Your task to perform on an android device: Is it going to rain tomorrow? Image 0: 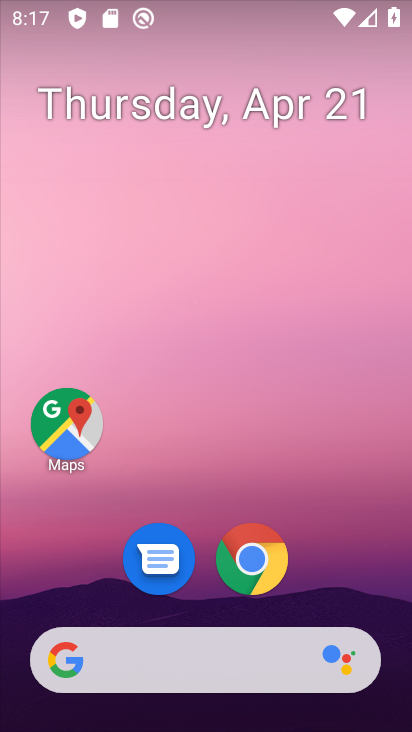
Step 0: click (254, 551)
Your task to perform on an android device: Is it going to rain tomorrow? Image 1: 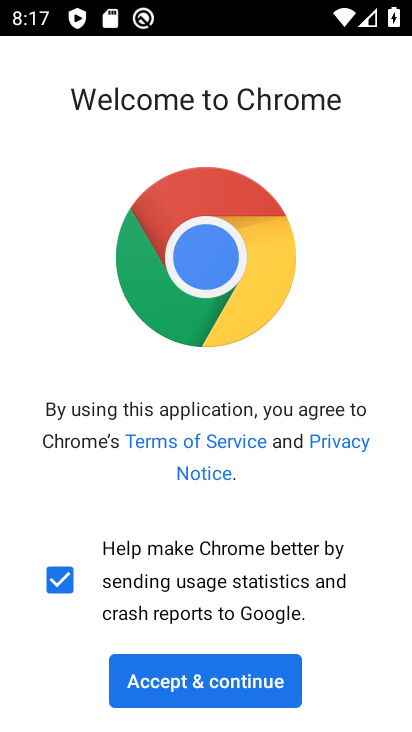
Step 1: click (228, 695)
Your task to perform on an android device: Is it going to rain tomorrow? Image 2: 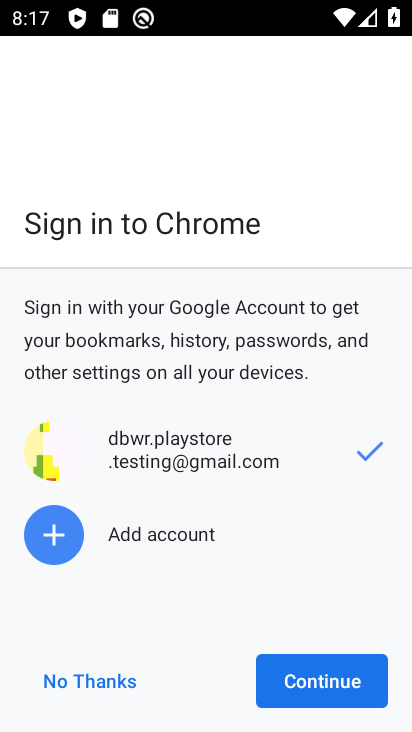
Step 2: click (278, 688)
Your task to perform on an android device: Is it going to rain tomorrow? Image 3: 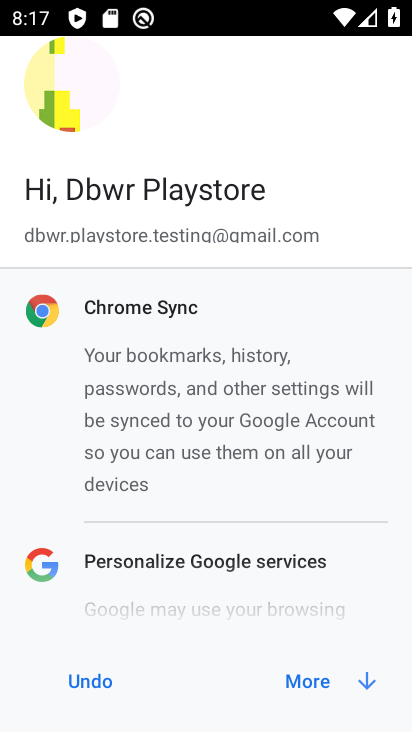
Step 3: click (296, 682)
Your task to perform on an android device: Is it going to rain tomorrow? Image 4: 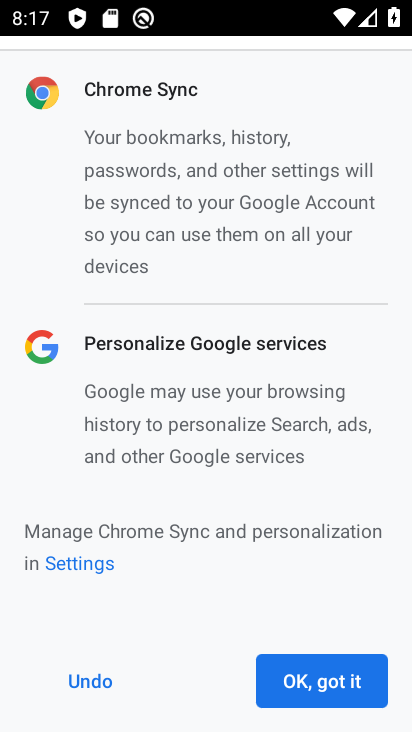
Step 4: click (336, 692)
Your task to perform on an android device: Is it going to rain tomorrow? Image 5: 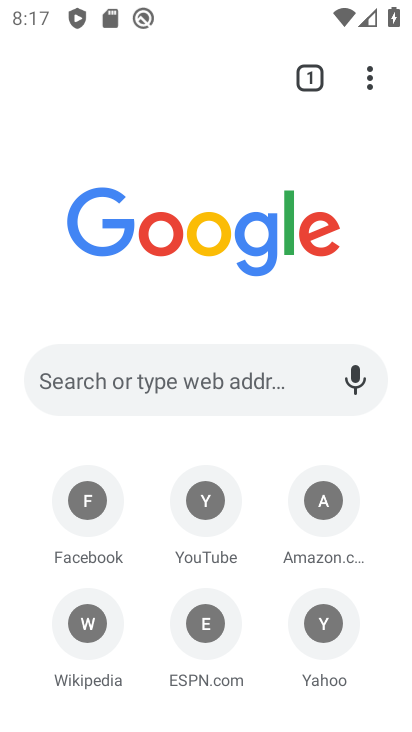
Step 5: click (153, 88)
Your task to perform on an android device: Is it going to rain tomorrow? Image 6: 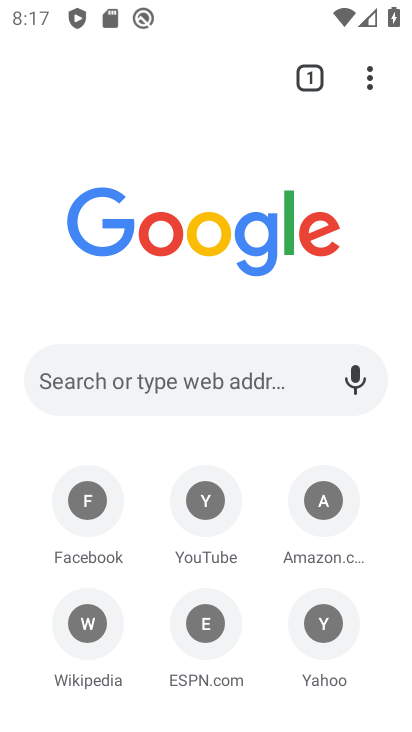
Step 6: click (206, 359)
Your task to perform on an android device: Is it going to rain tomorrow? Image 7: 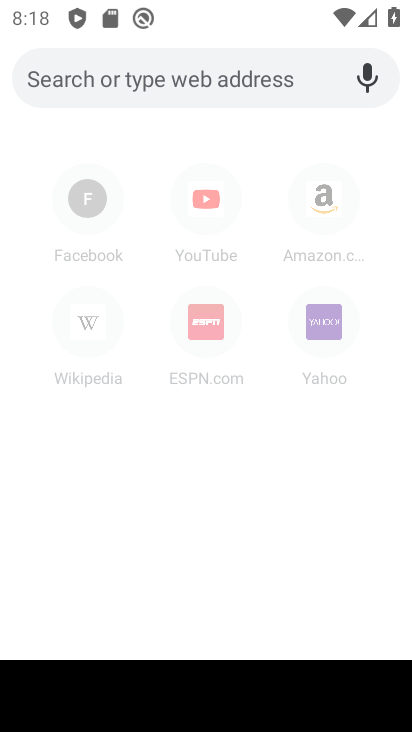
Step 7: type "is it going to rain tomorrow"
Your task to perform on an android device: Is it going to rain tomorrow? Image 8: 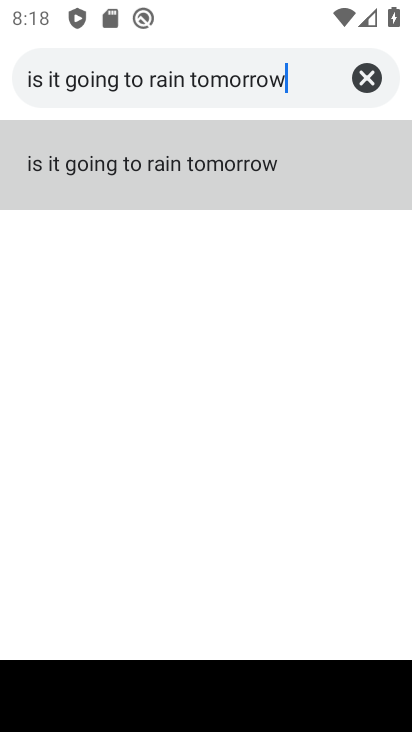
Step 8: click (250, 178)
Your task to perform on an android device: Is it going to rain tomorrow? Image 9: 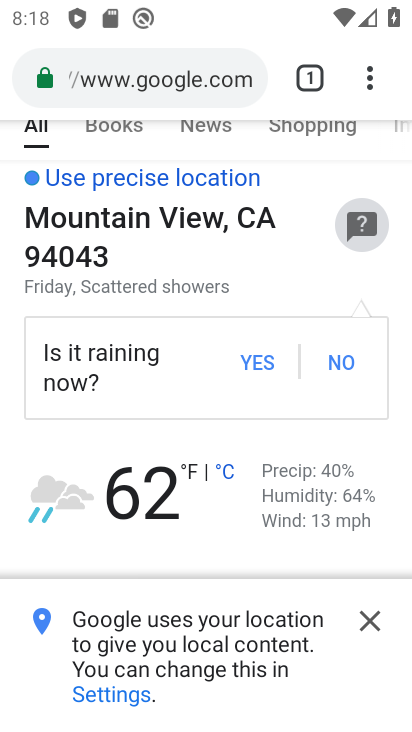
Step 9: task complete